Your task to perform on an android device: Open maps Image 0: 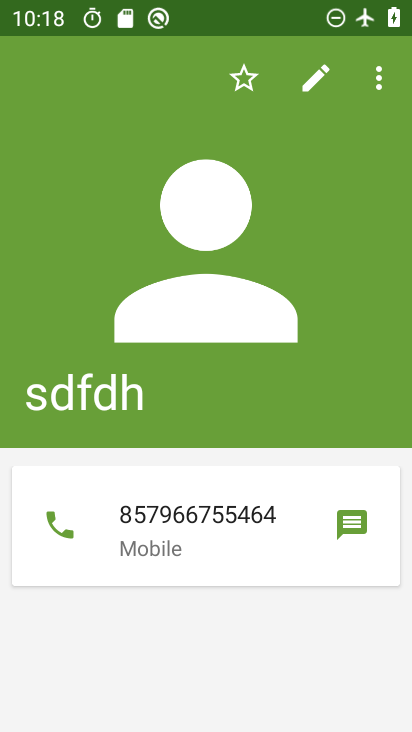
Step 0: press home button
Your task to perform on an android device: Open maps Image 1: 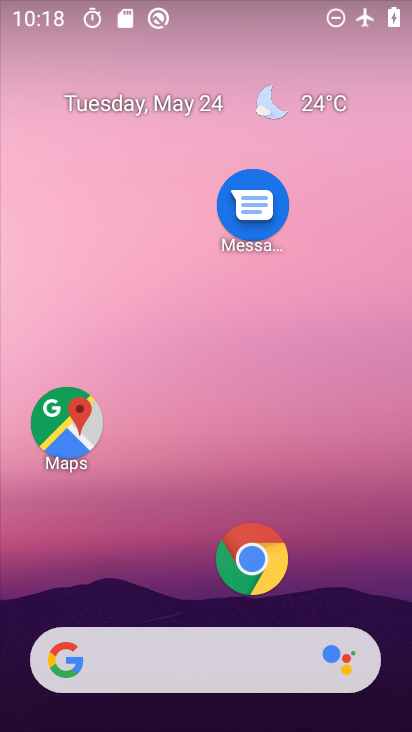
Step 1: click (91, 434)
Your task to perform on an android device: Open maps Image 2: 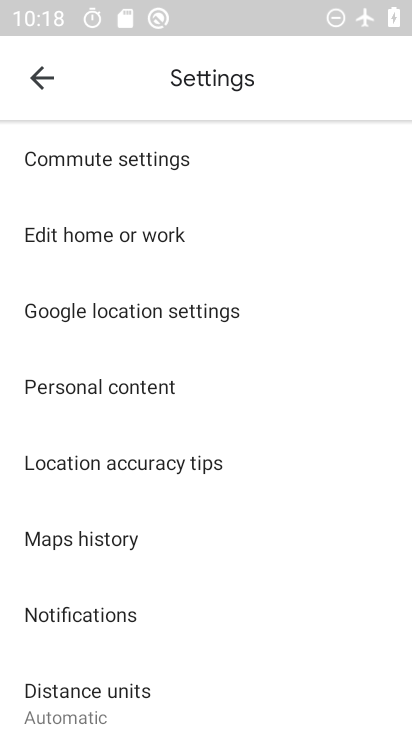
Step 2: click (39, 80)
Your task to perform on an android device: Open maps Image 3: 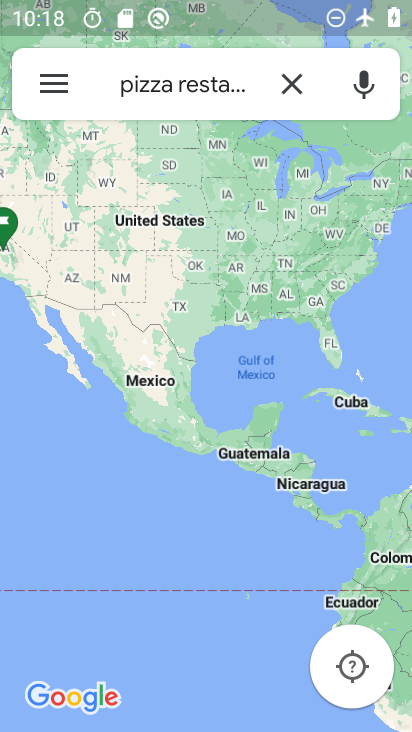
Step 3: task complete